Your task to perform on an android device: check out phone information Image 0: 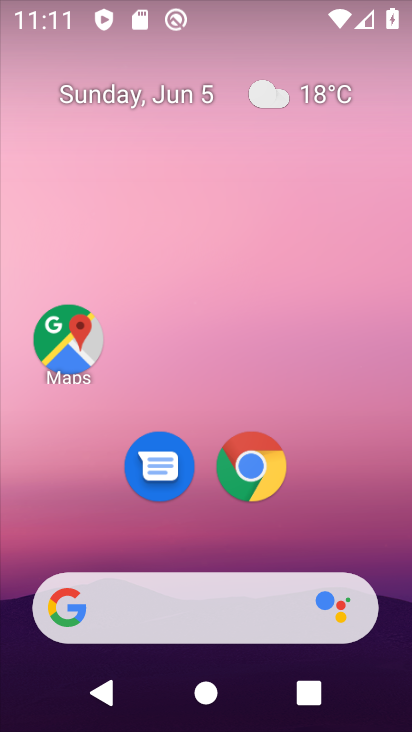
Step 0: press home button
Your task to perform on an android device: check out phone information Image 1: 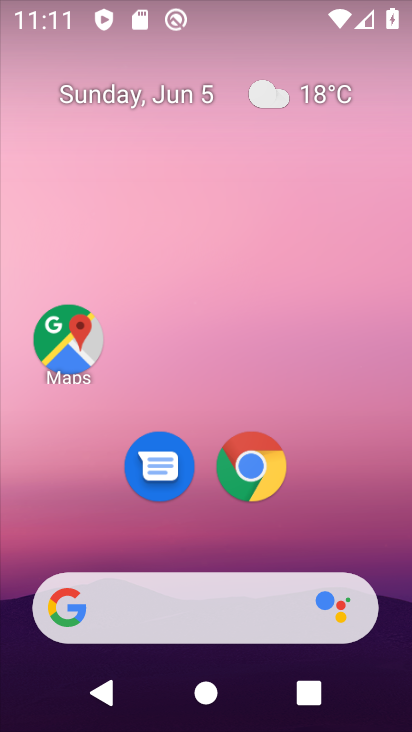
Step 1: drag from (316, 522) to (344, 133)
Your task to perform on an android device: check out phone information Image 2: 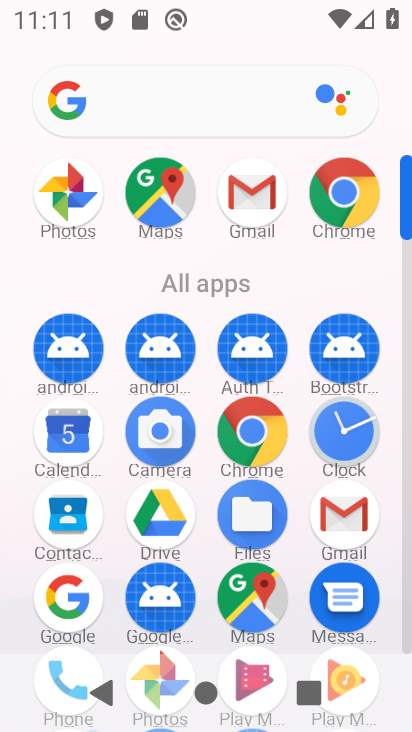
Step 2: drag from (202, 586) to (248, 324)
Your task to perform on an android device: check out phone information Image 3: 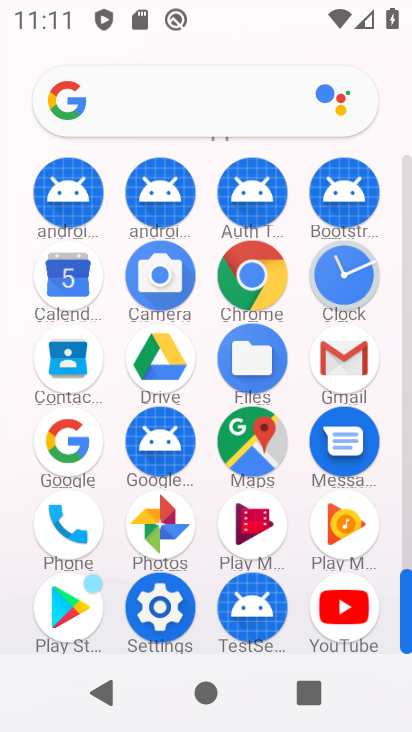
Step 3: click (80, 525)
Your task to perform on an android device: check out phone information Image 4: 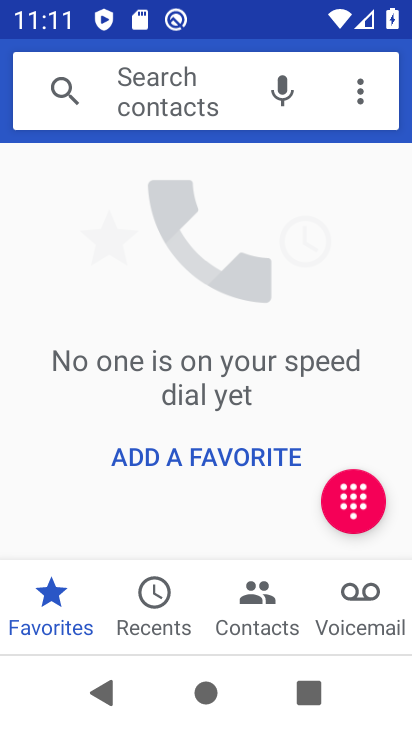
Step 4: task complete